Your task to perform on an android device: Go to accessibility settings Image 0: 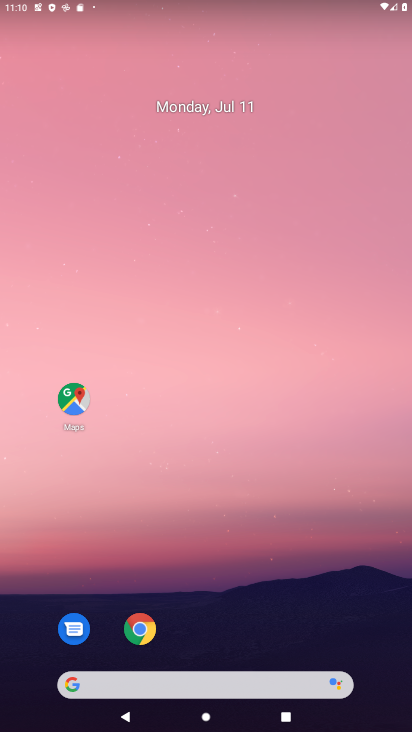
Step 0: drag from (275, 650) to (259, 113)
Your task to perform on an android device: Go to accessibility settings Image 1: 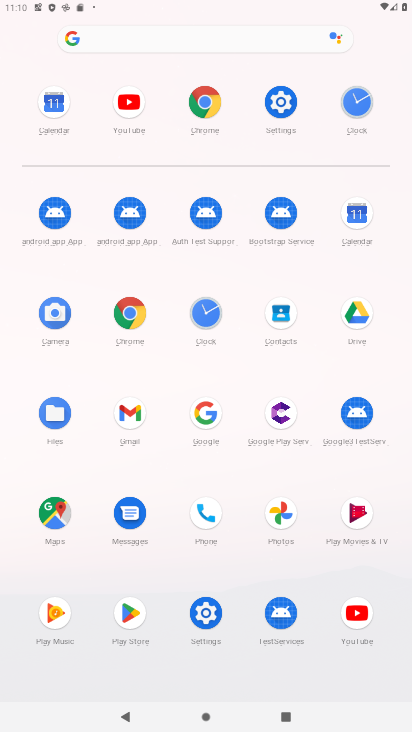
Step 1: click (278, 136)
Your task to perform on an android device: Go to accessibility settings Image 2: 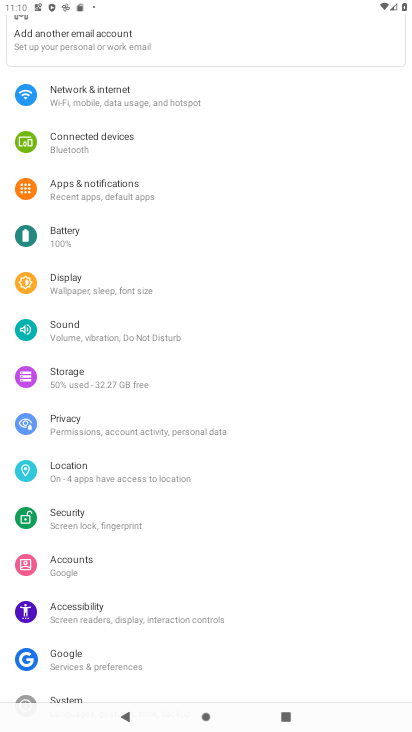
Step 2: click (148, 609)
Your task to perform on an android device: Go to accessibility settings Image 3: 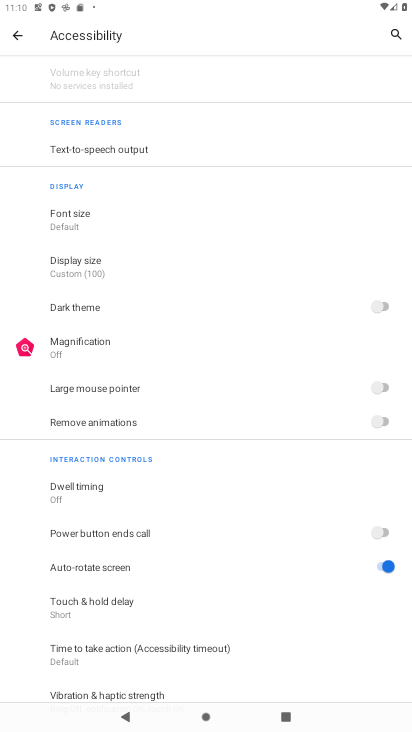
Step 3: task complete